Your task to perform on an android device: open wifi settings Image 0: 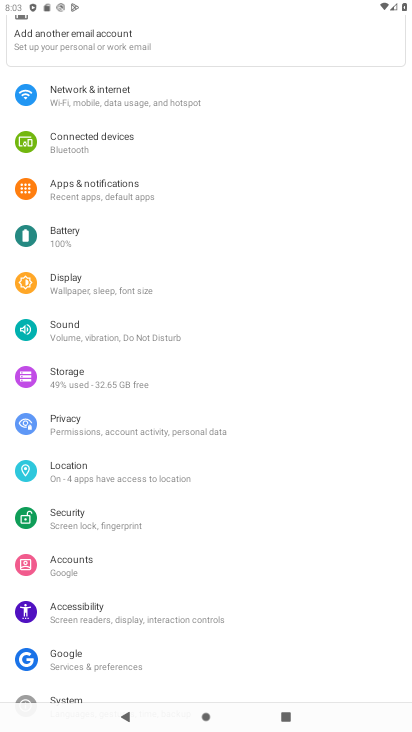
Step 0: click (76, 85)
Your task to perform on an android device: open wifi settings Image 1: 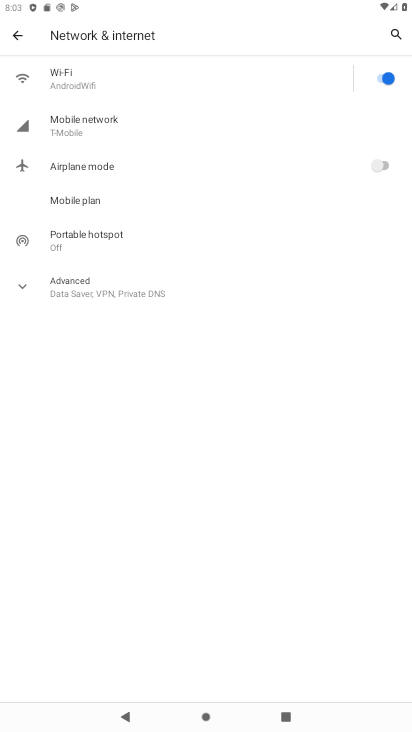
Step 1: click (75, 85)
Your task to perform on an android device: open wifi settings Image 2: 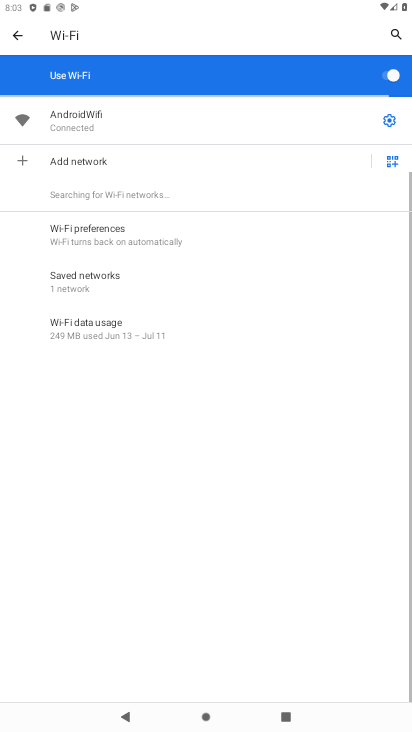
Step 2: task complete